Your task to perform on an android device: Open Google Image 0: 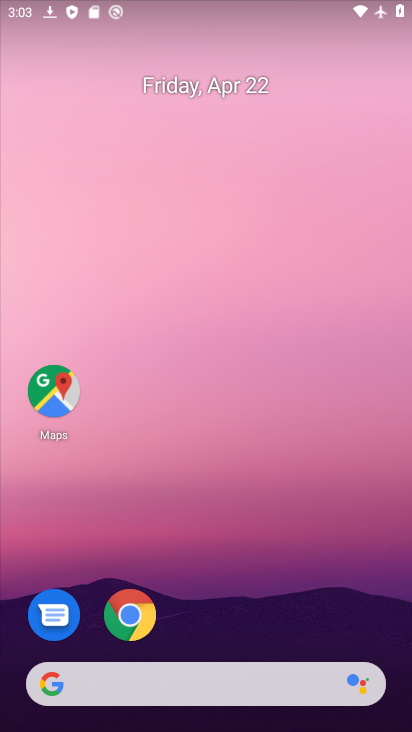
Step 0: drag from (296, 350) to (264, 203)
Your task to perform on an android device: Open Google Image 1: 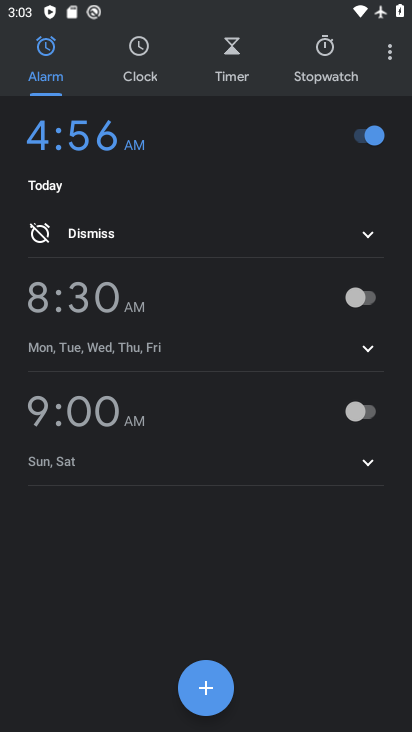
Step 1: press home button
Your task to perform on an android device: Open Google Image 2: 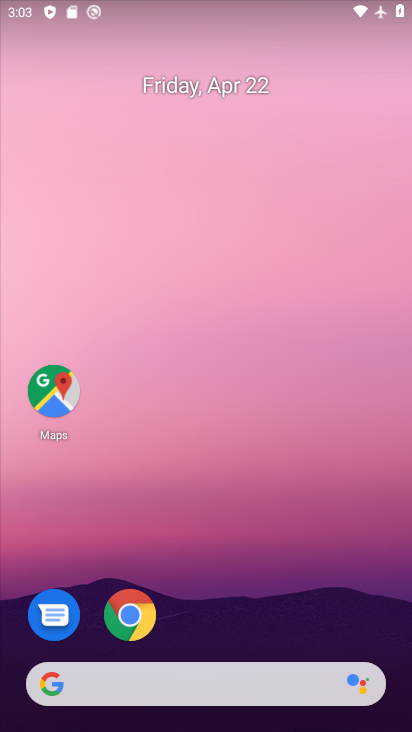
Step 2: drag from (216, 599) to (211, 168)
Your task to perform on an android device: Open Google Image 3: 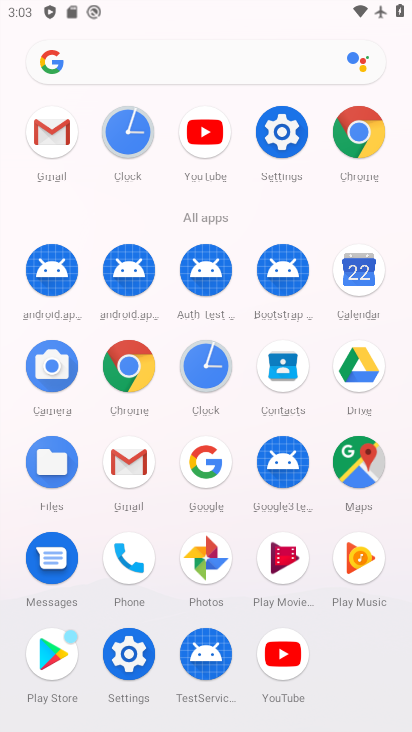
Step 3: click (201, 467)
Your task to perform on an android device: Open Google Image 4: 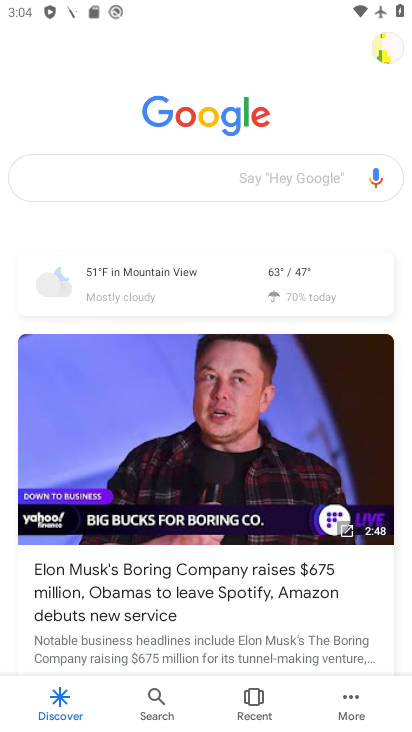
Step 4: task complete